Your task to perform on an android device: Set the phone to "Do not disturb". Image 0: 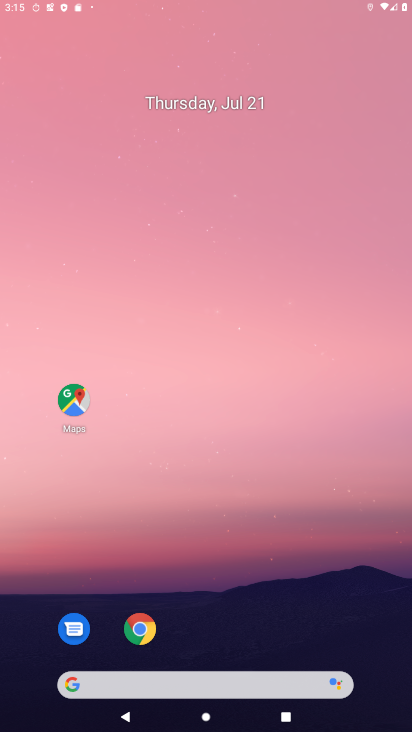
Step 0: drag from (211, 648) to (221, 216)
Your task to perform on an android device: Set the phone to "Do not disturb". Image 1: 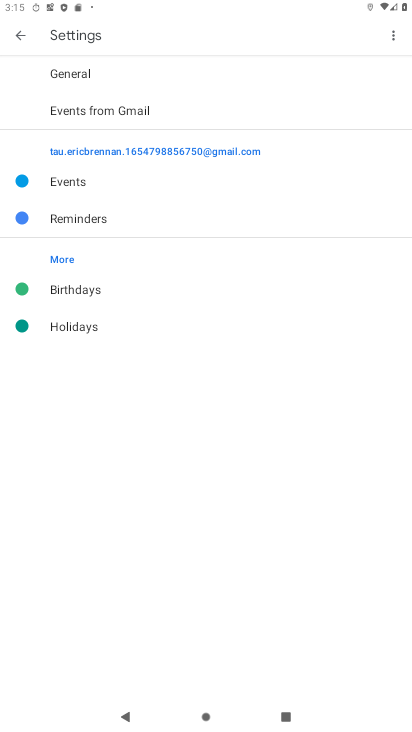
Step 1: press home button
Your task to perform on an android device: Set the phone to "Do not disturb". Image 2: 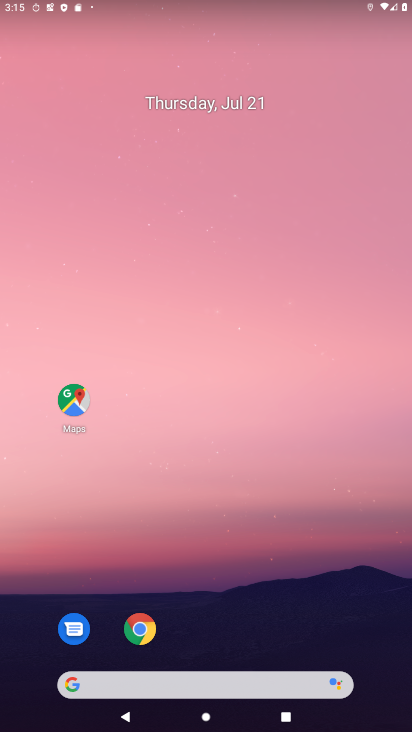
Step 2: drag from (224, 624) to (295, 29)
Your task to perform on an android device: Set the phone to "Do not disturb". Image 3: 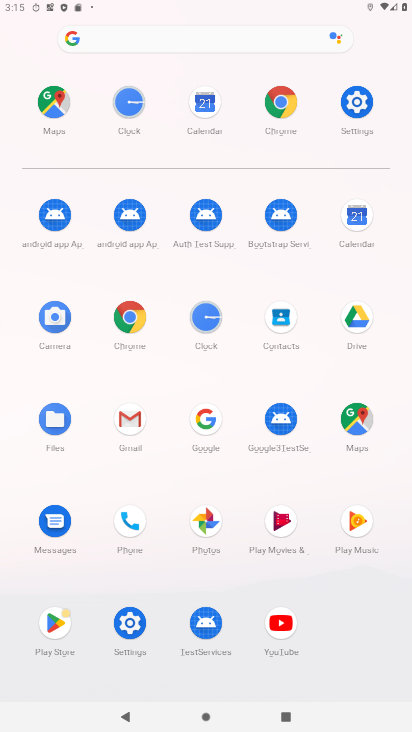
Step 3: click (126, 637)
Your task to perform on an android device: Set the phone to "Do not disturb". Image 4: 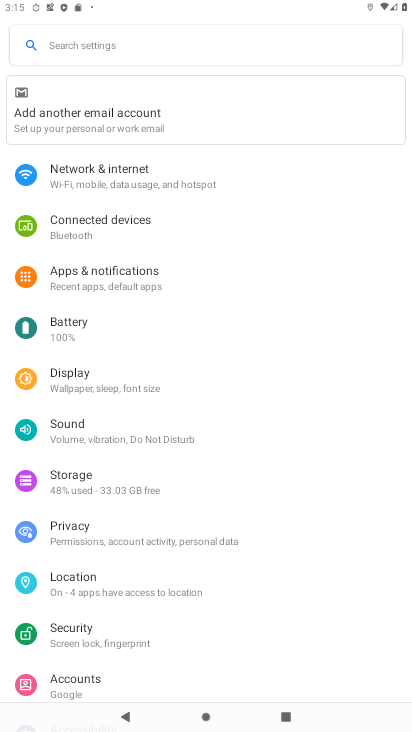
Step 4: click (99, 440)
Your task to perform on an android device: Set the phone to "Do not disturb". Image 5: 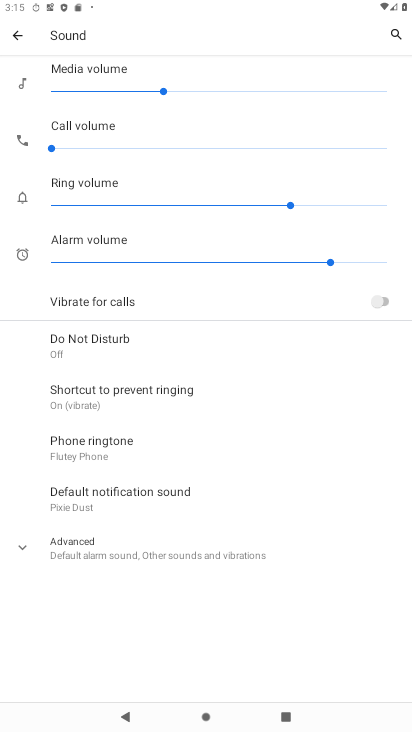
Step 5: click (82, 341)
Your task to perform on an android device: Set the phone to "Do not disturb". Image 6: 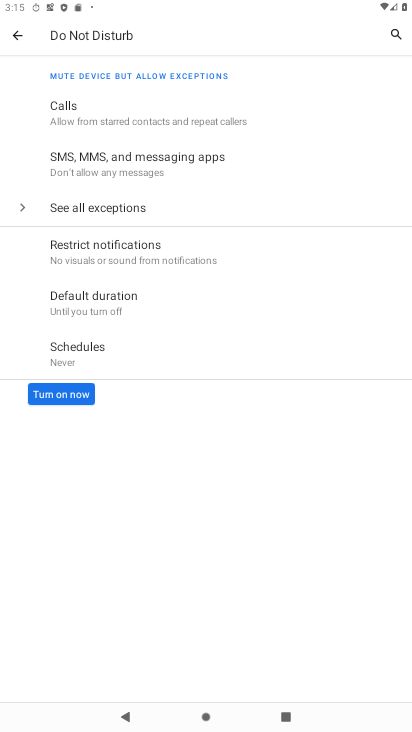
Step 6: click (62, 400)
Your task to perform on an android device: Set the phone to "Do not disturb". Image 7: 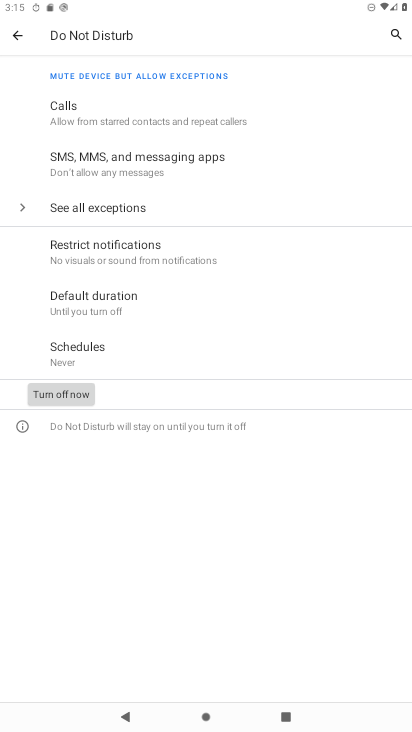
Step 7: task complete